Your task to perform on an android device: open app "ZOOM Cloud Meetings" (install if not already installed) and go to login screen Image 0: 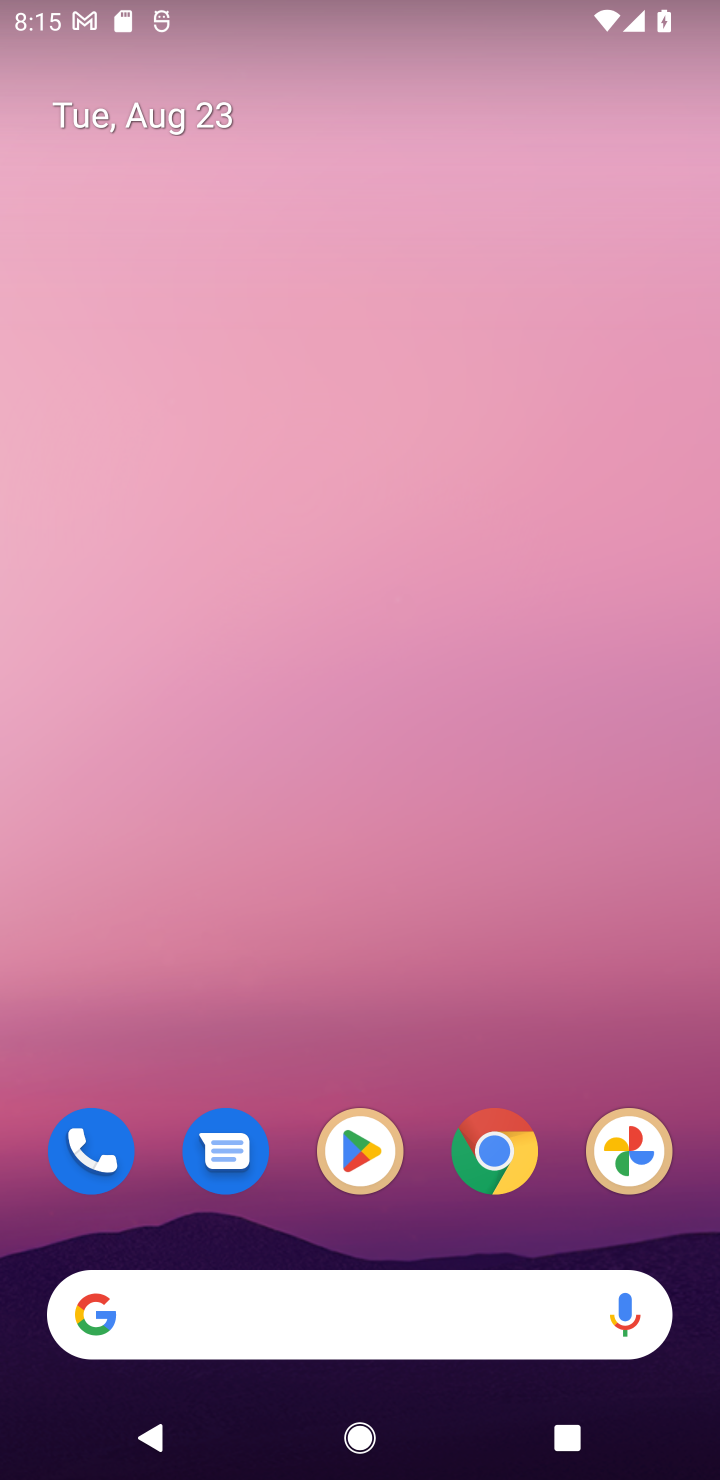
Step 0: click (361, 1171)
Your task to perform on an android device: open app "ZOOM Cloud Meetings" (install if not already installed) and go to login screen Image 1: 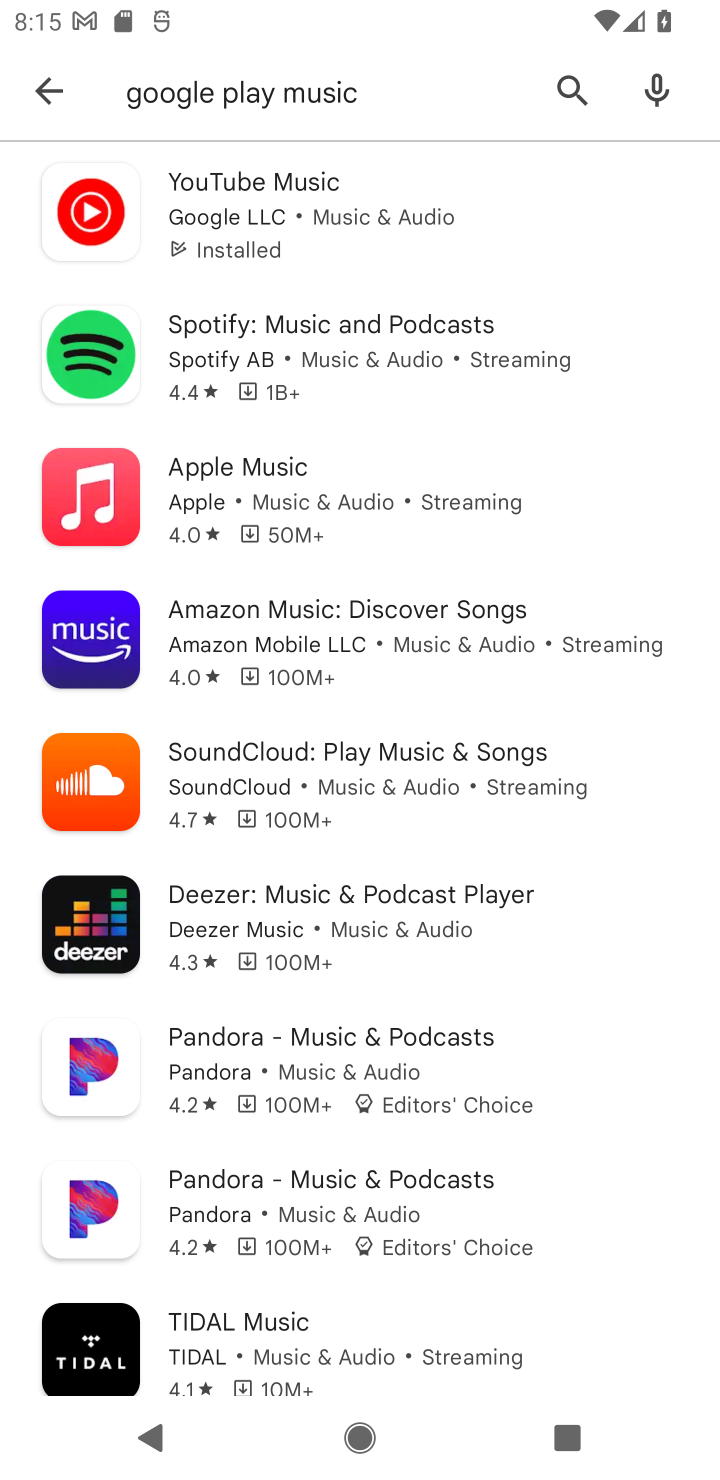
Step 1: click (28, 90)
Your task to perform on an android device: open app "ZOOM Cloud Meetings" (install if not already installed) and go to login screen Image 2: 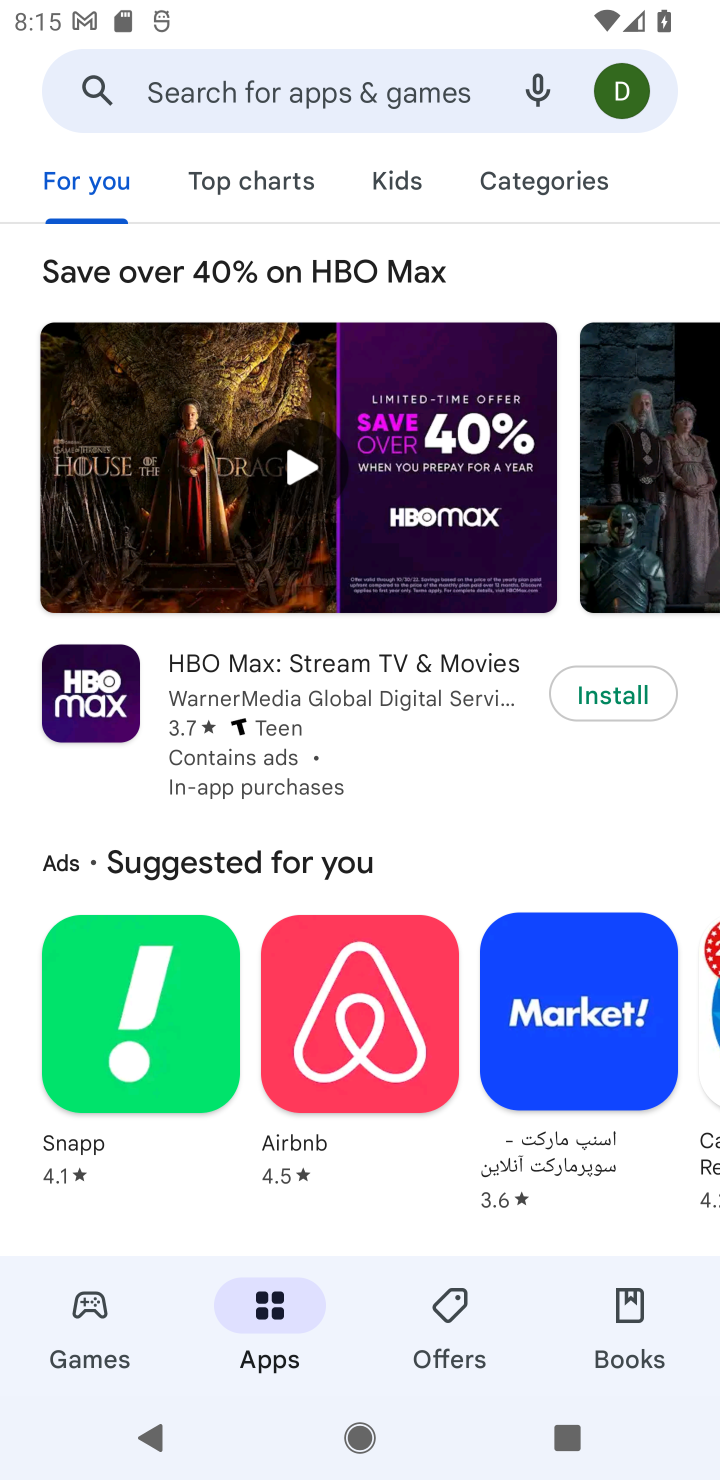
Step 2: click (213, 90)
Your task to perform on an android device: open app "ZOOM Cloud Meetings" (install if not already installed) and go to login screen Image 3: 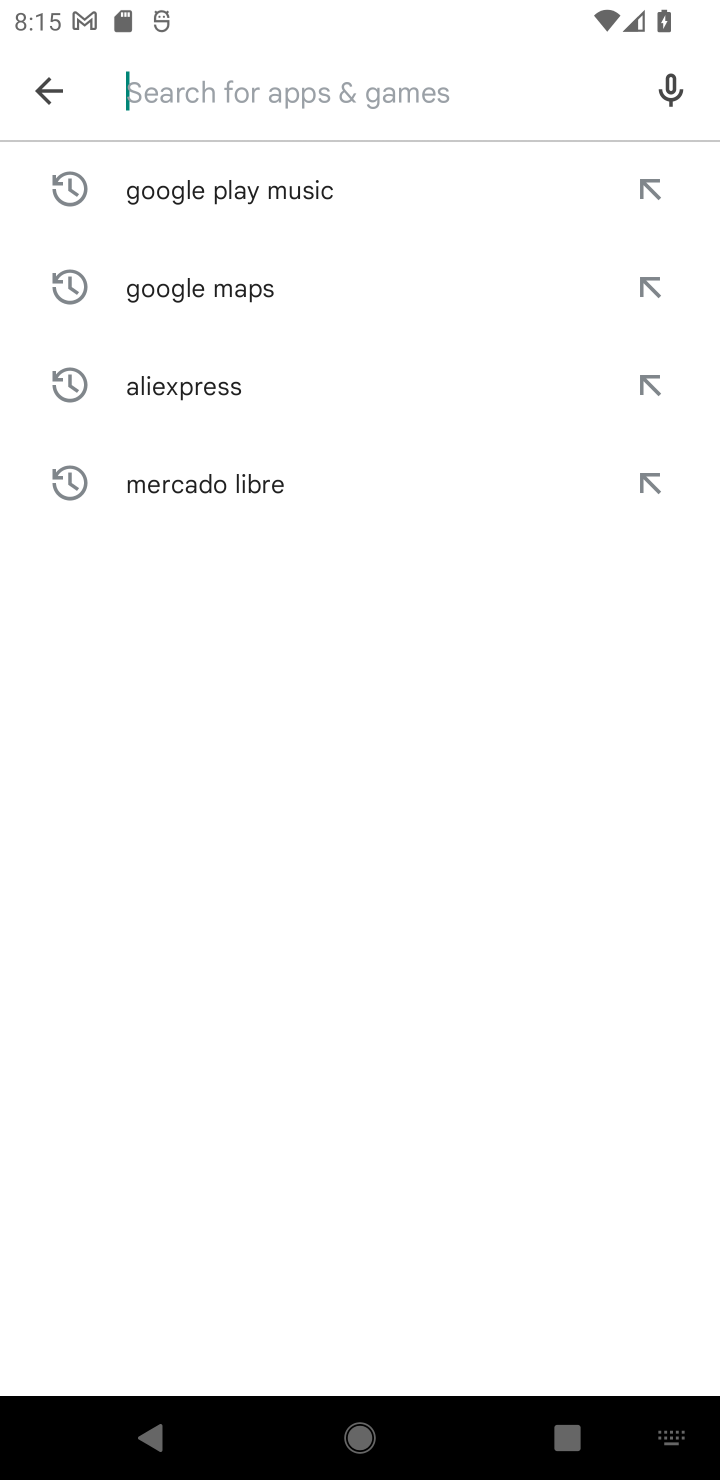
Step 3: type "ZOOM Cloud Meetings"
Your task to perform on an android device: open app "ZOOM Cloud Meetings" (install if not already installed) and go to login screen Image 4: 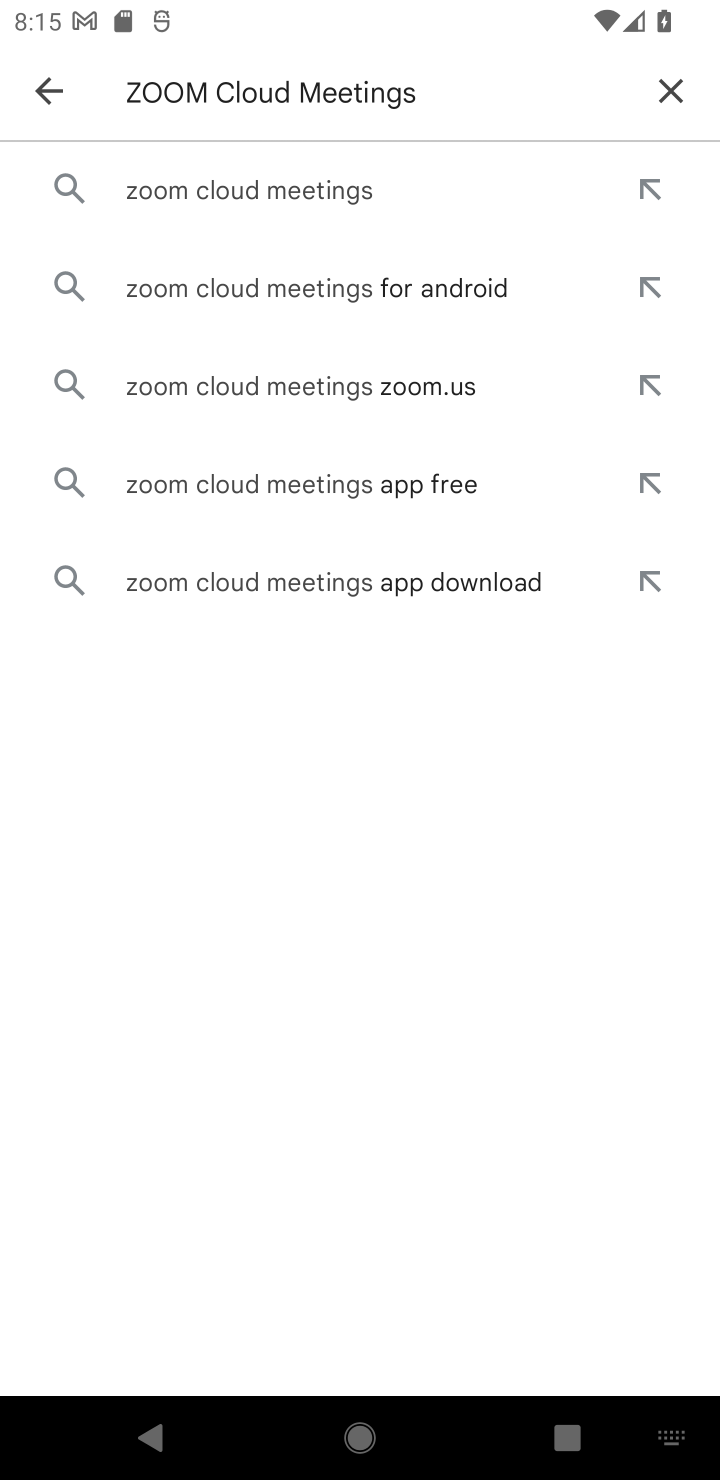
Step 4: click (210, 192)
Your task to perform on an android device: open app "ZOOM Cloud Meetings" (install if not already installed) and go to login screen Image 5: 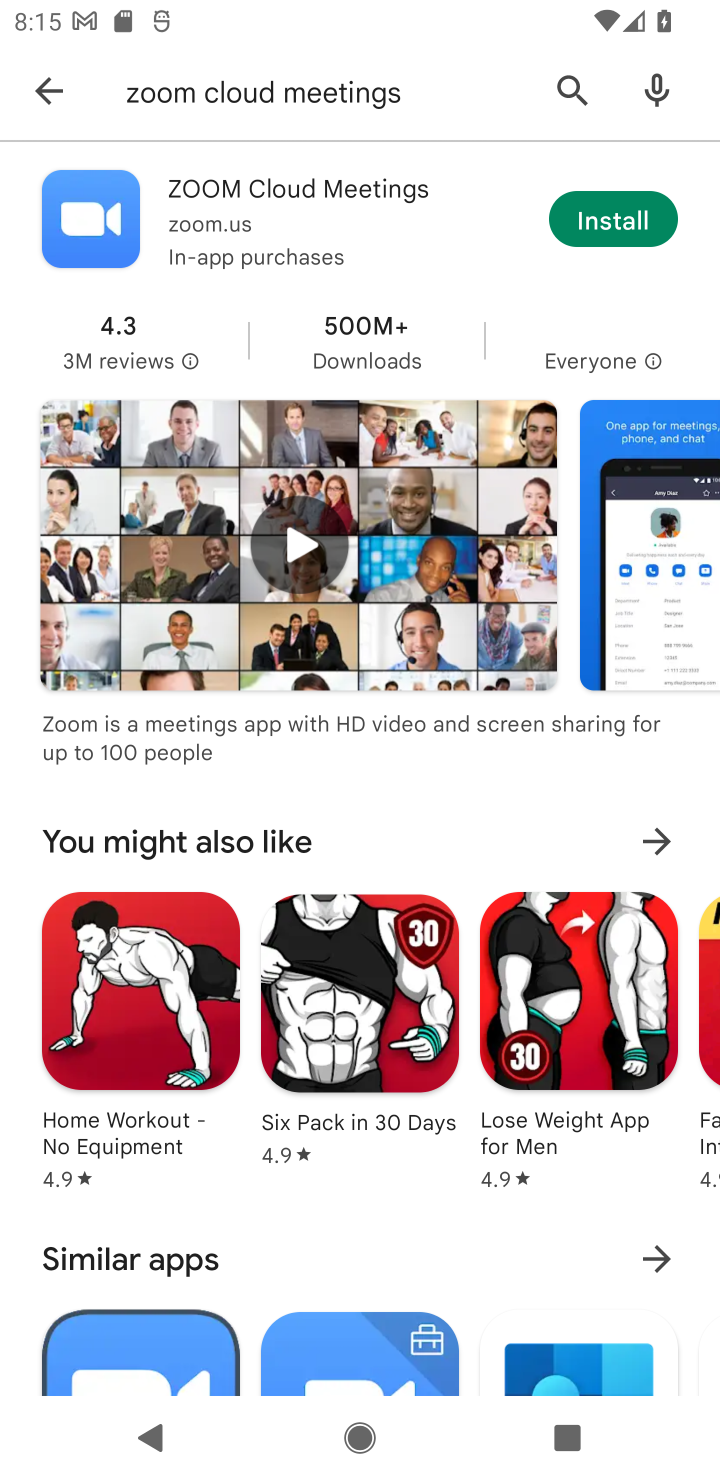
Step 5: click (622, 219)
Your task to perform on an android device: open app "ZOOM Cloud Meetings" (install if not already installed) and go to login screen Image 6: 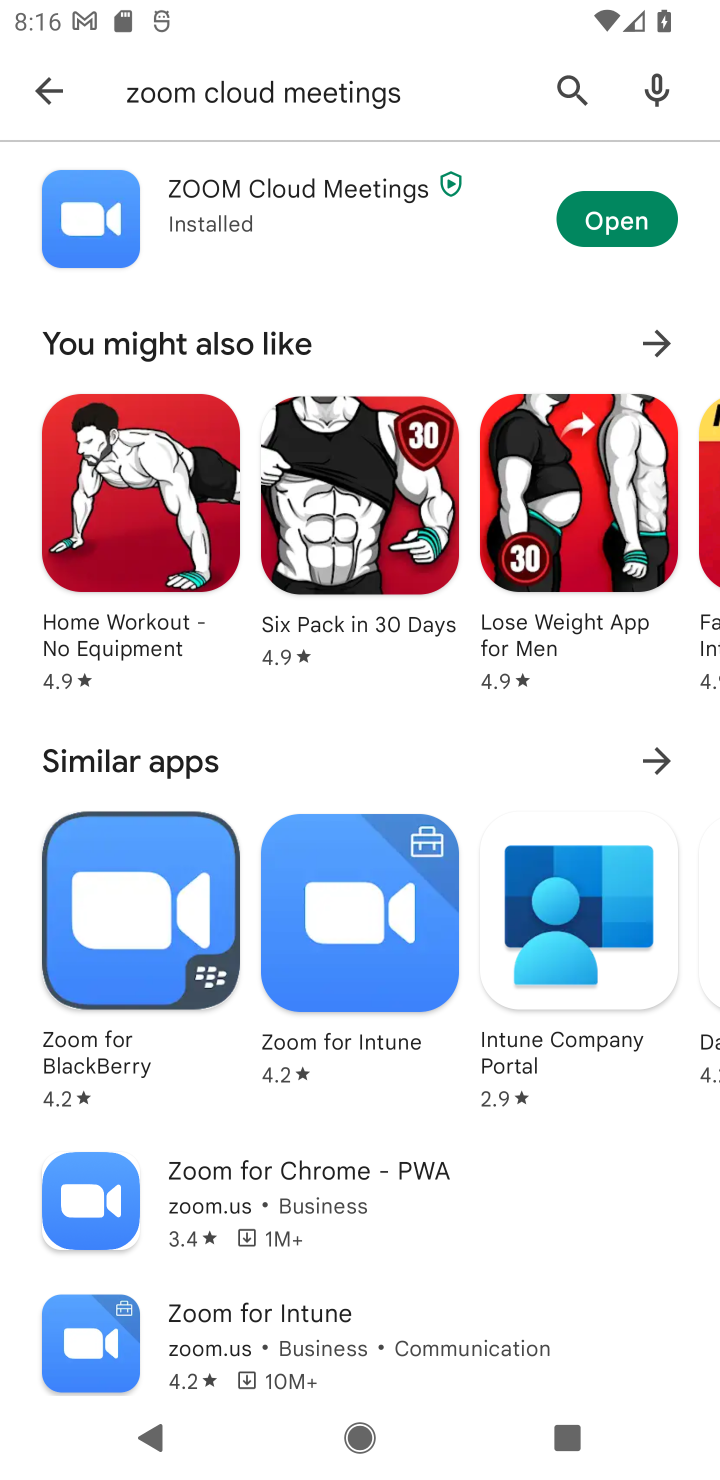
Step 6: click (601, 210)
Your task to perform on an android device: open app "ZOOM Cloud Meetings" (install if not already installed) and go to login screen Image 7: 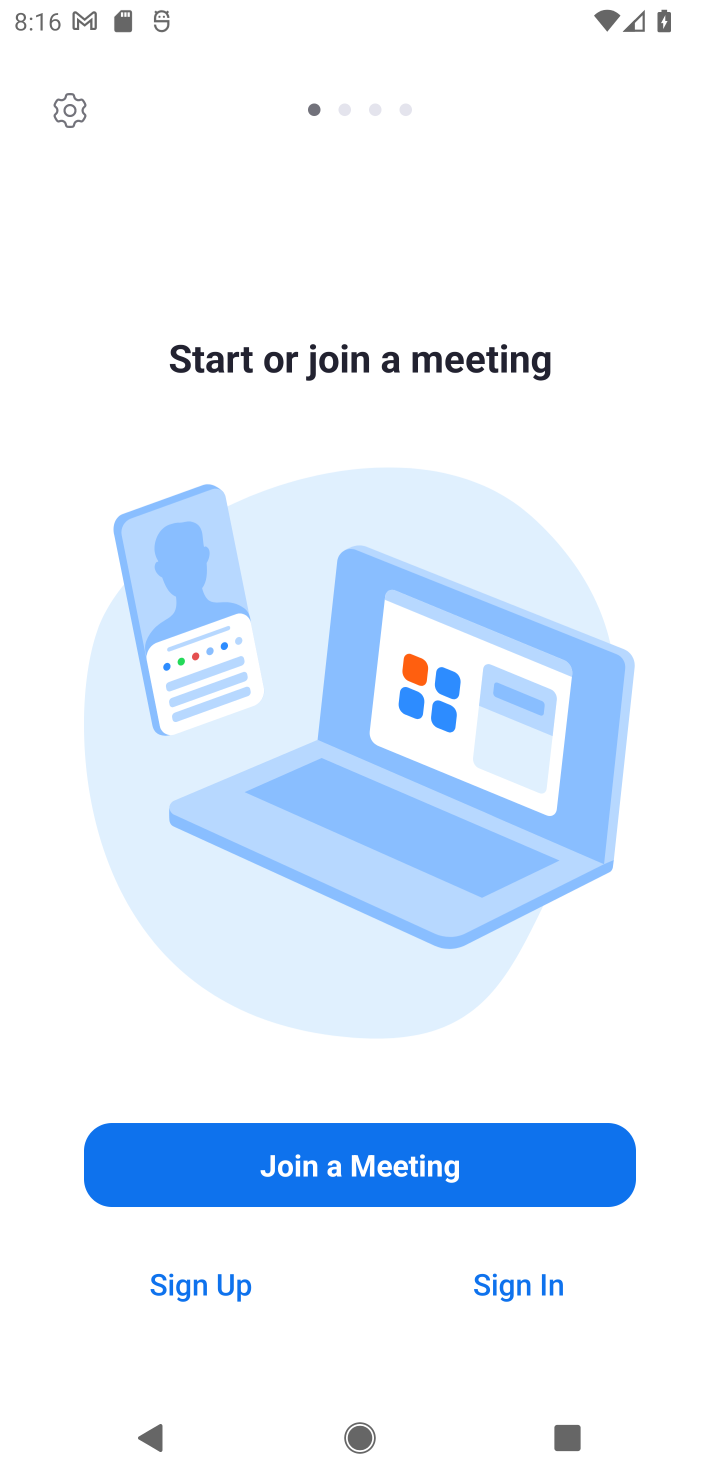
Step 7: task complete